Your task to perform on an android device: change the clock display to digital Image 0: 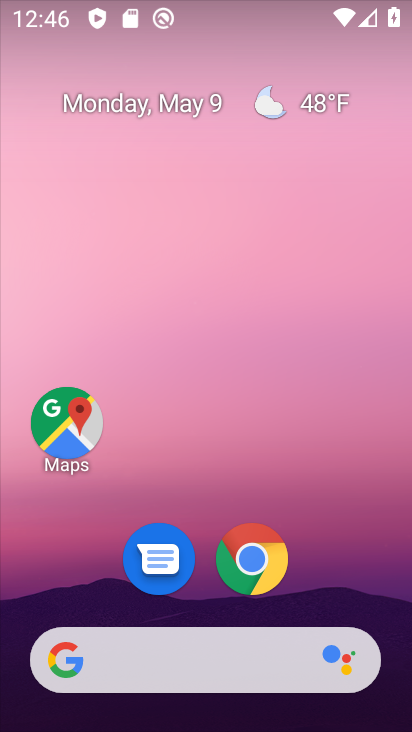
Step 0: drag from (193, 610) to (261, 273)
Your task to perform on an android device: change the clock display to digital Image 1: 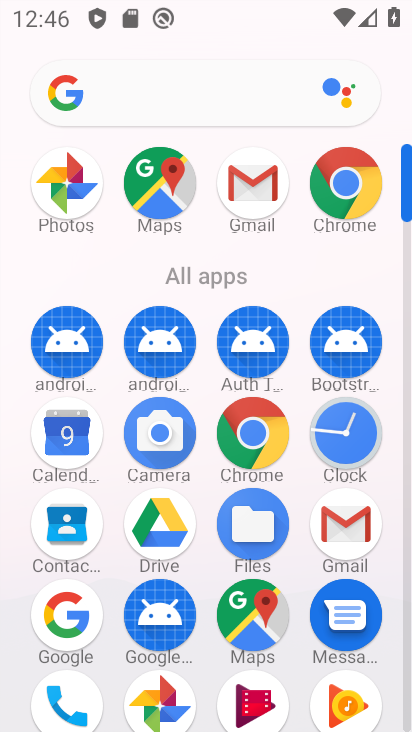
Step 1: click (322, 438)
Your task to perform on an android device: change the clock display to digital Image 2: 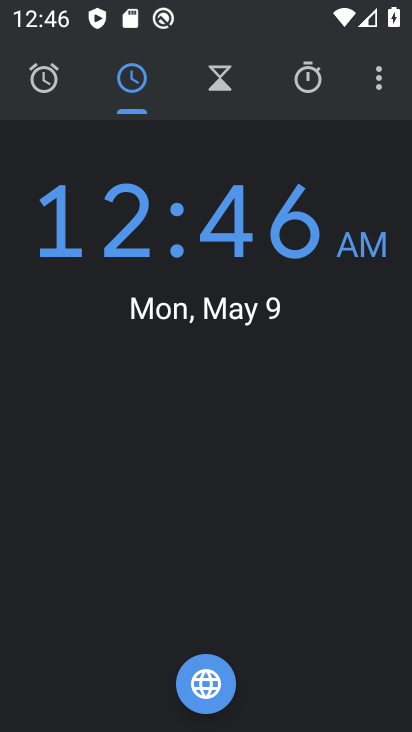
Step 2: click (382, 79)
Your task to perform on an android device: change the clock display to digital Image 3: 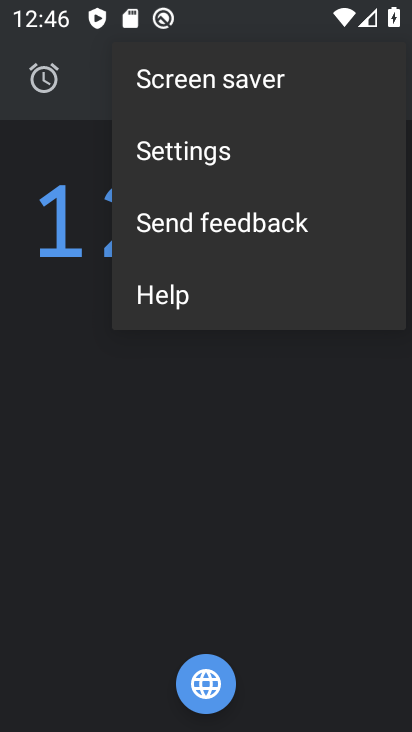
Step 3: click (116, 180)
Your task to perform on an android device: change the clock display to digital Image 4: 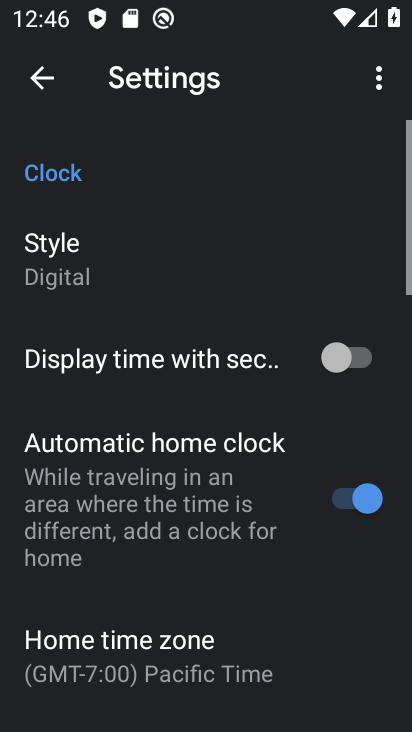
Step 4: click (107, 259)
Your task to perform on an android device: change the clock display to digital Image 5: 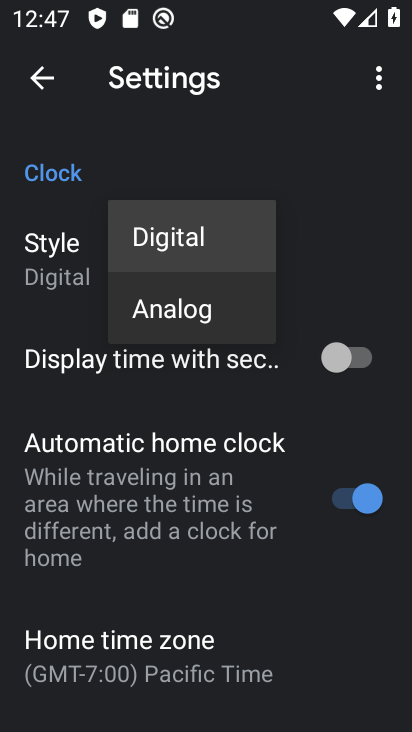
Step 5: click (216, 248)
Your task to perform on an android device: change the clock display to digital Image 6: 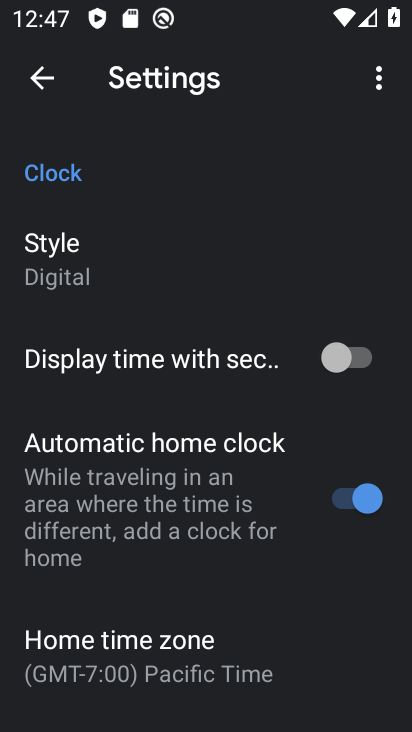
Step 6: drag from (121, 625) to (327, 99)
Your task to perform on an android device: change the clock display to digital Image 7: 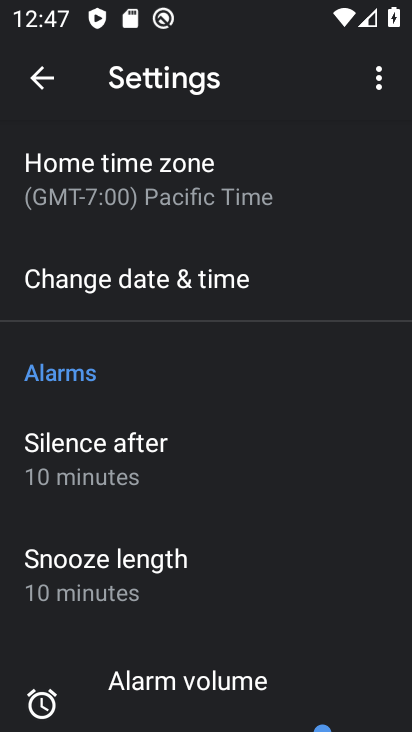
Step 7: drag from (246, 532) to (300, 243)
Your task to perform on an android device: change the clock display to digital Image 8: 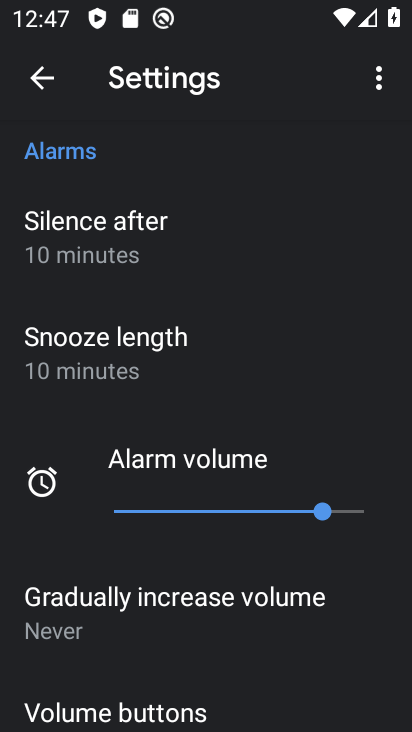
Step 8: drag from (229, 692) to (267, 312)
Your task to perform on an android device: change the clock display to digital Image 9: 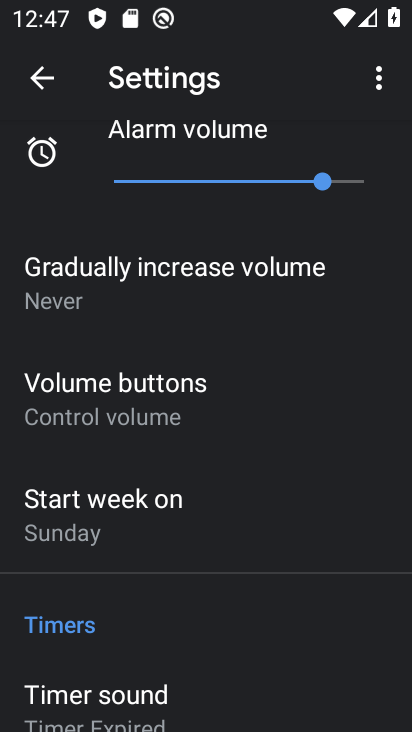
Step 9: drag from (220, 307) to (336, 723)
Your task to perform on an android device: change the clock display to digital Image 10: 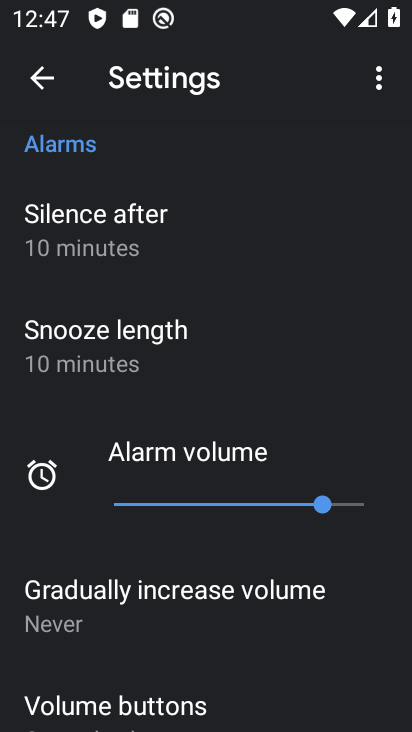
Step 10: drag from (148, 216) to (347, 704)
Your task to perform on an android device: change the clock display to digital Image 11: 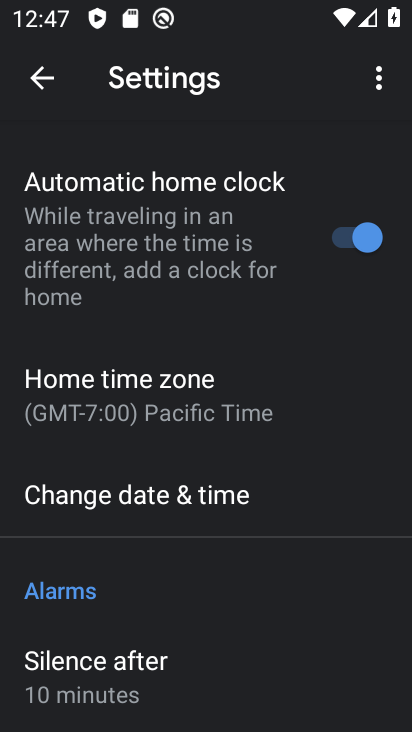
Step 11: drag from (138, 213) to (333, 636)
Your task to perform on an android device: change the clock display to digital Image 12: 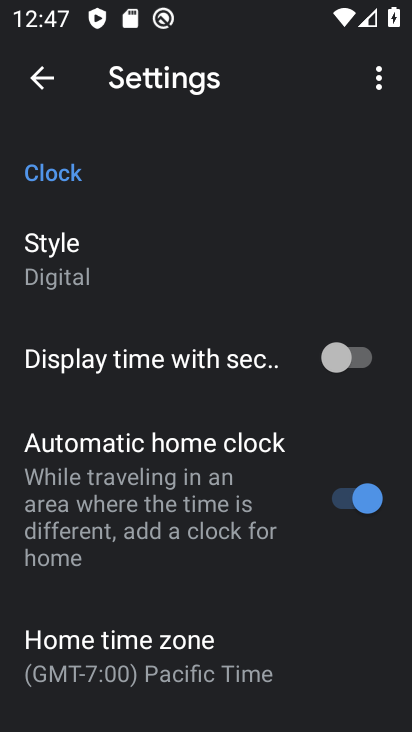
Step 12: drag from (185, 336) to (231, 621)
Your task to perform on an android device: change the clock display to digital Image 13: 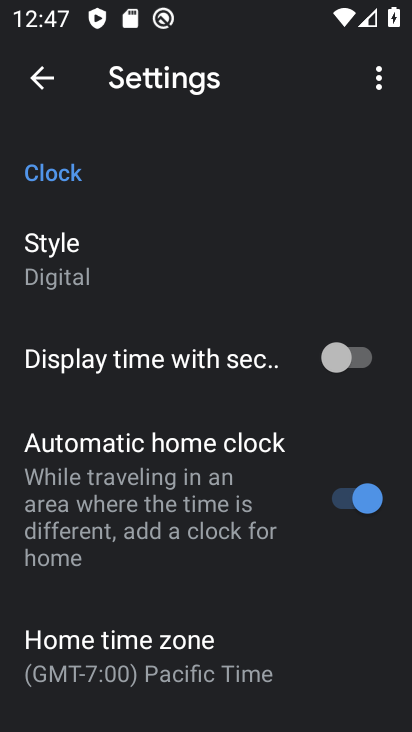
Step 13: click (96, 241)
Your task to perform on an android device: change the clock display to digital Image 14: 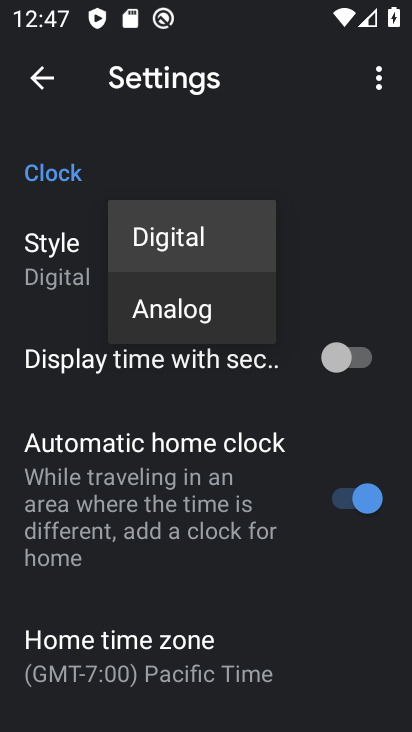
Step 14: click (179, 294)
Your task to perform on an android device: change the clock display to digital Image 15: 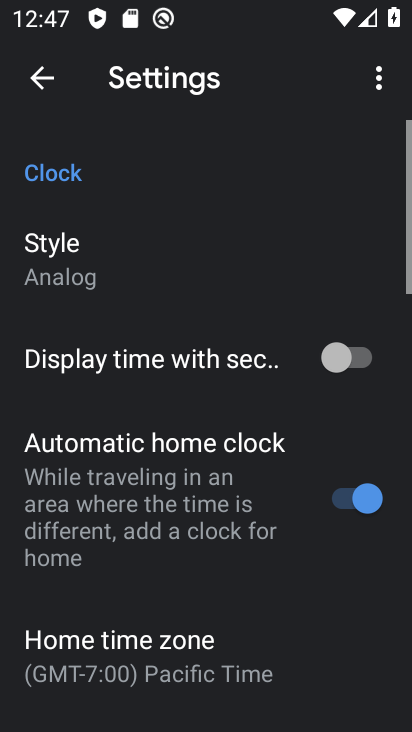
Step 15: click (68, 256)
Your task to perform on an android device: change the clock display to digital Image 16: 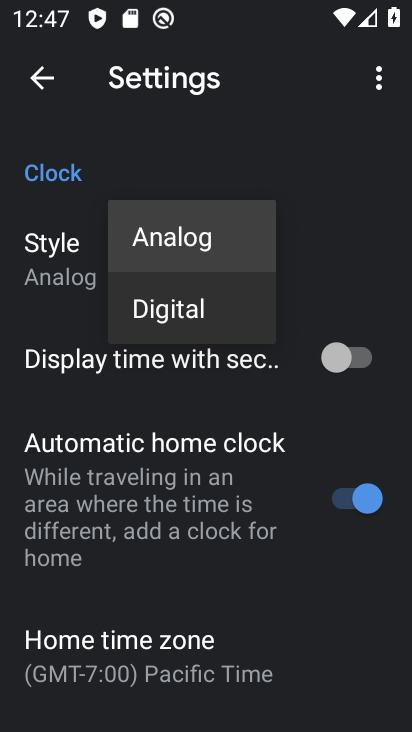
Step 16: click (227, 249)
Your task to perform on an android device: change the clock display to digital Image 17: 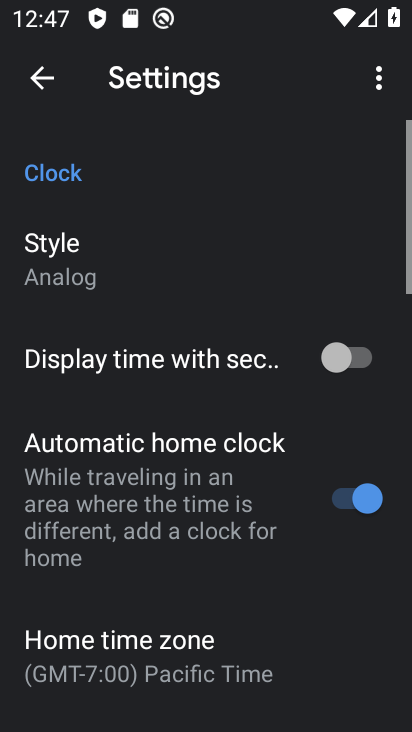
Step 17: click (76, 250)
Your task to perform on an android device: change the clock display to digital Image 18: 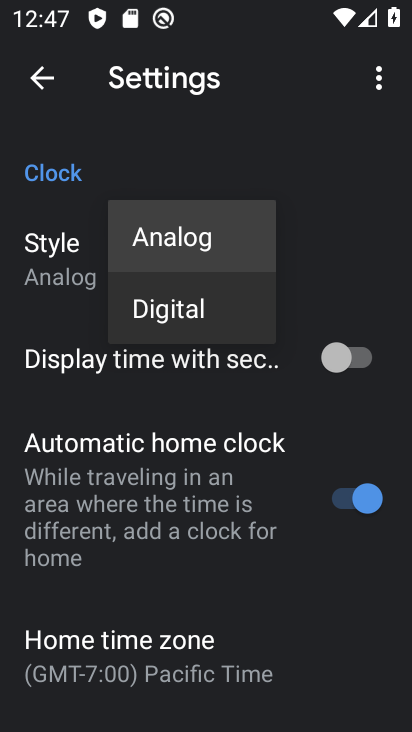
Step 18: click (186, 298)
Your task to perform on an android device: change the clock display to digital Image 19: 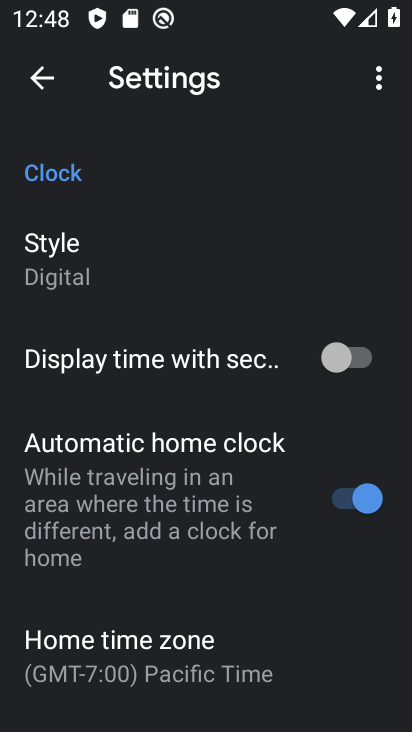
Step 19: task complete